Your task to perform on an android device: turn off sleep mode Image 0: 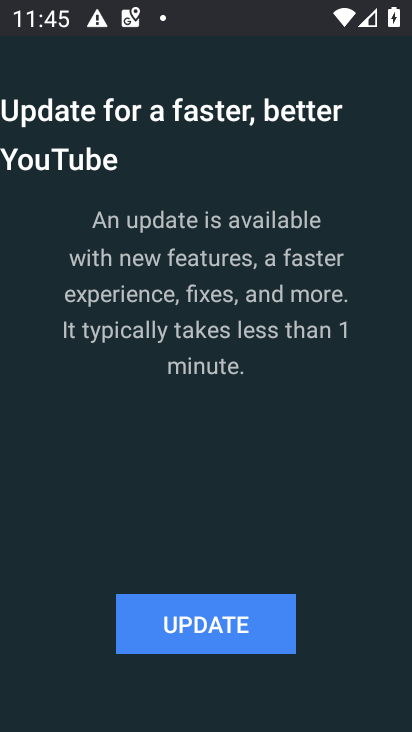
Step 0: press home button
Your task to perform on an android device: turn off sleep mode Image 1: 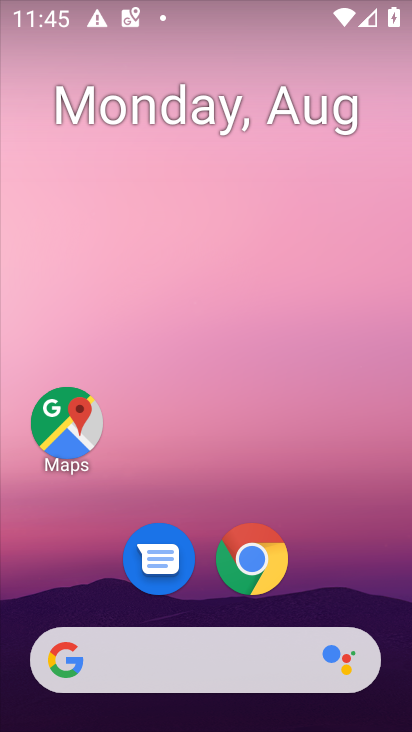
Step 1: drag from (222, 549) to (188, 147)
Your task to perform on an android device: turn off sleep mode Image 2: 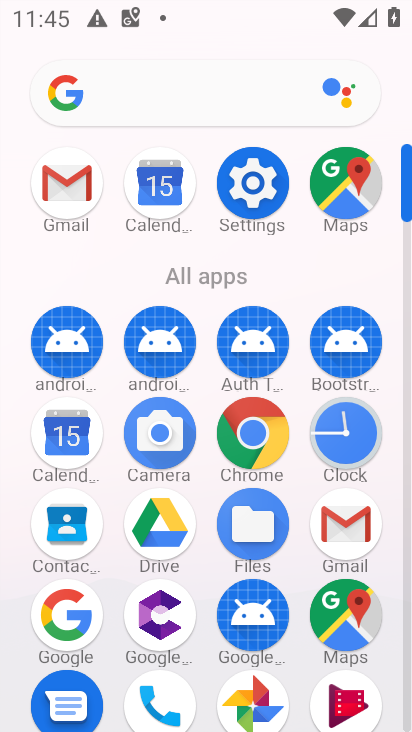
Step 2: click (251, 191)
Your task to perform on an android device: turn off sleep mode Image 3: 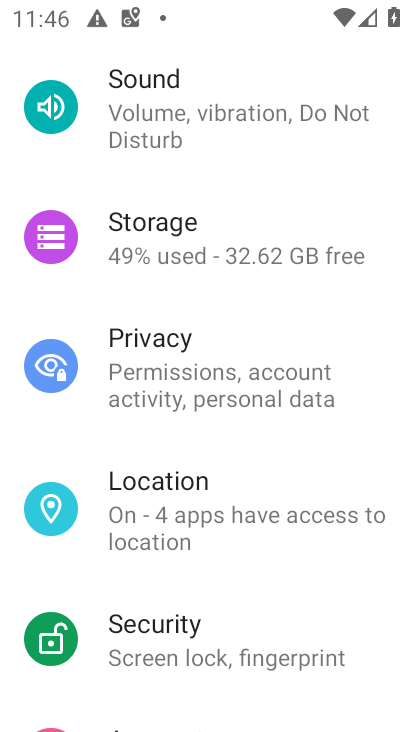
Step 3: drag from (259, 200) to (261, 579)
Your task to perform on an android device: turn off sleep mode Image 4: 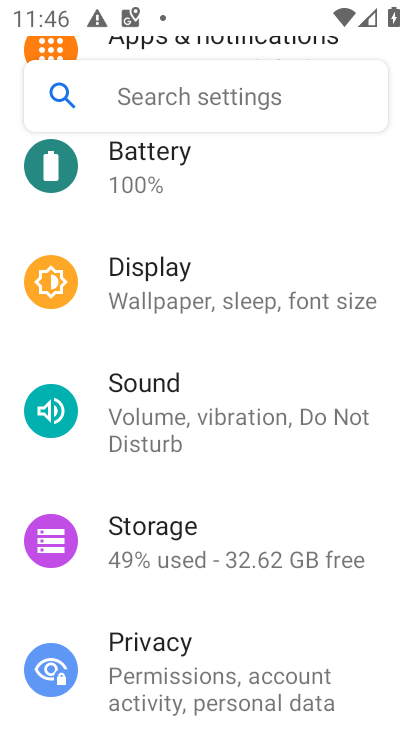
Step 4: click (194, 97)
Your task to perform on an android device: turn off sleep mode Image 5: 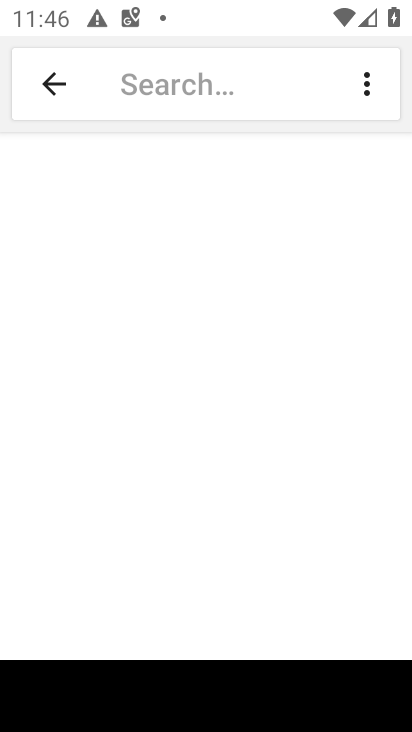
Step 5: type "sleep mode"
Your task to perform on an android device: turn off sleep mode Image 6: 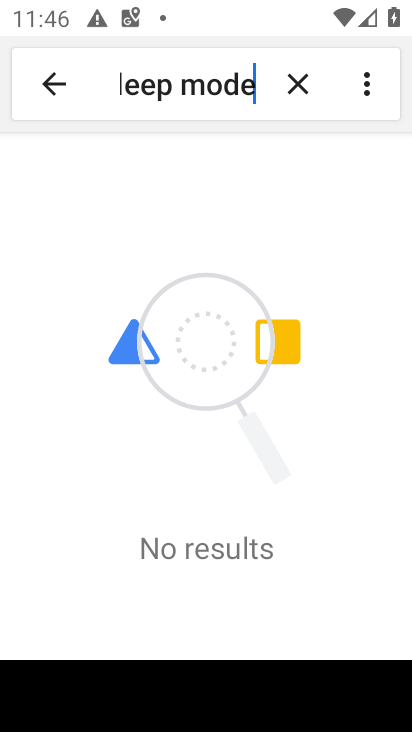
Step 6: task complete